Your task to perform on an android device: What is the recent news? Image 0: 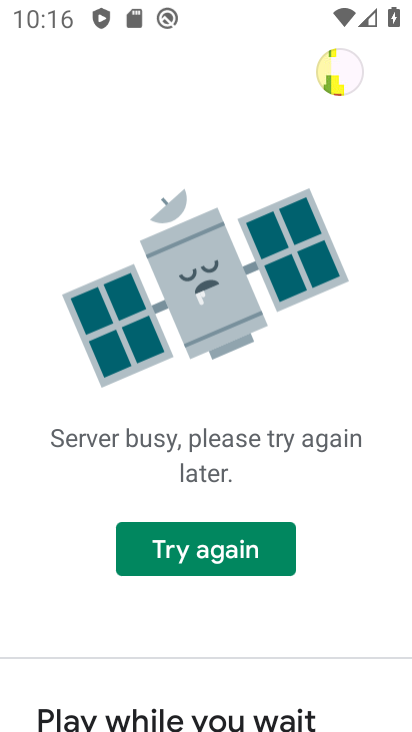
Step 0: press home button
Your task to perform on an android device: What is the recent news? Image 1: 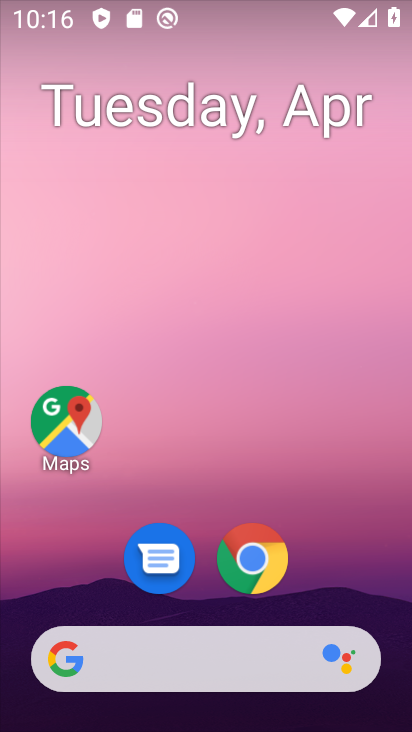
Step 1: click (203, 654)
Your task to perform on an android device: What is the recent news? Image 2: 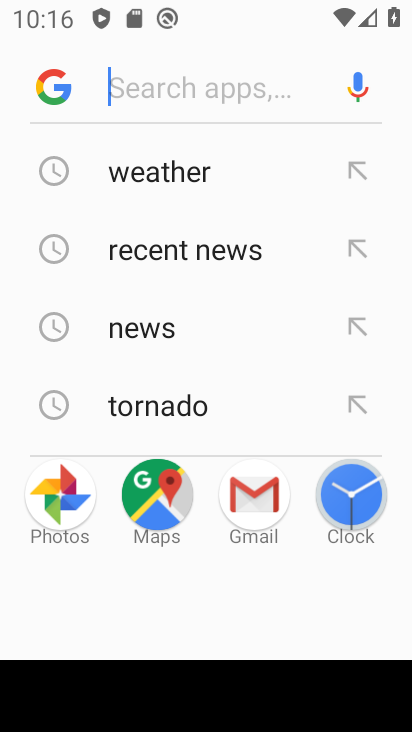
Step 2: type "recent news"
Your task to perform on an android device: What is the recent news? Image 3: 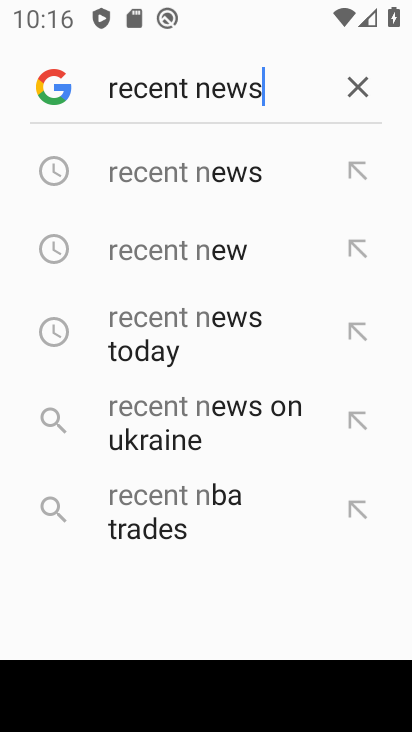
Step 3: click (214, 254)
Your task to perform on an android device: What is the recent news? Image 4: 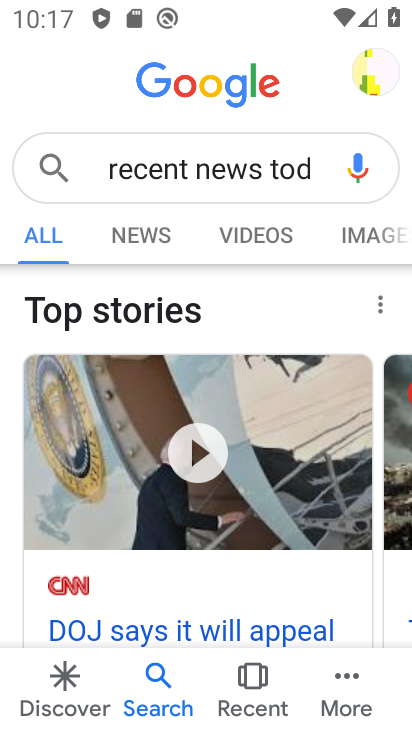
Step 4: task complete